Your task to perform on an android device: open chrome privacy settings Image 0: 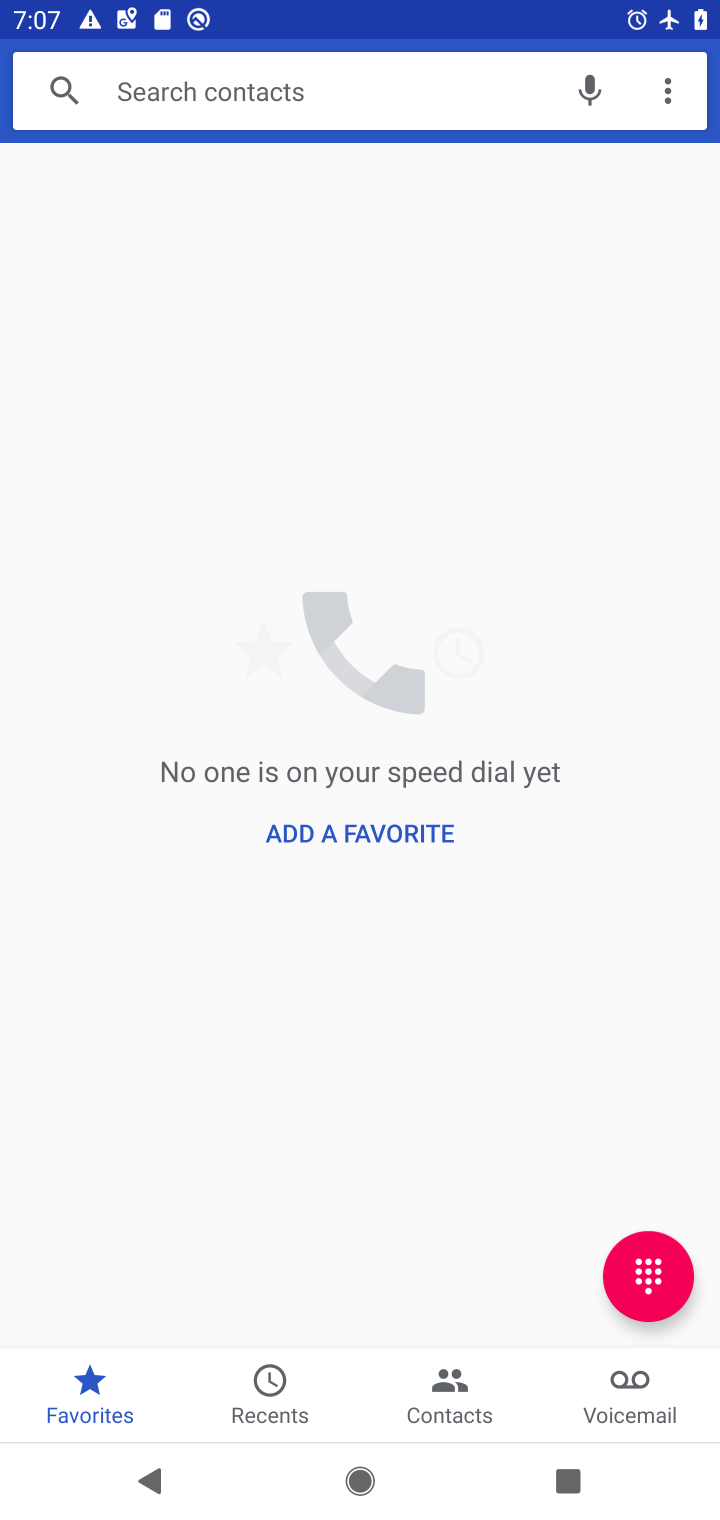
Step 0: press home button
Your task to perform on an android device: open chrome privacy settings Image 1: 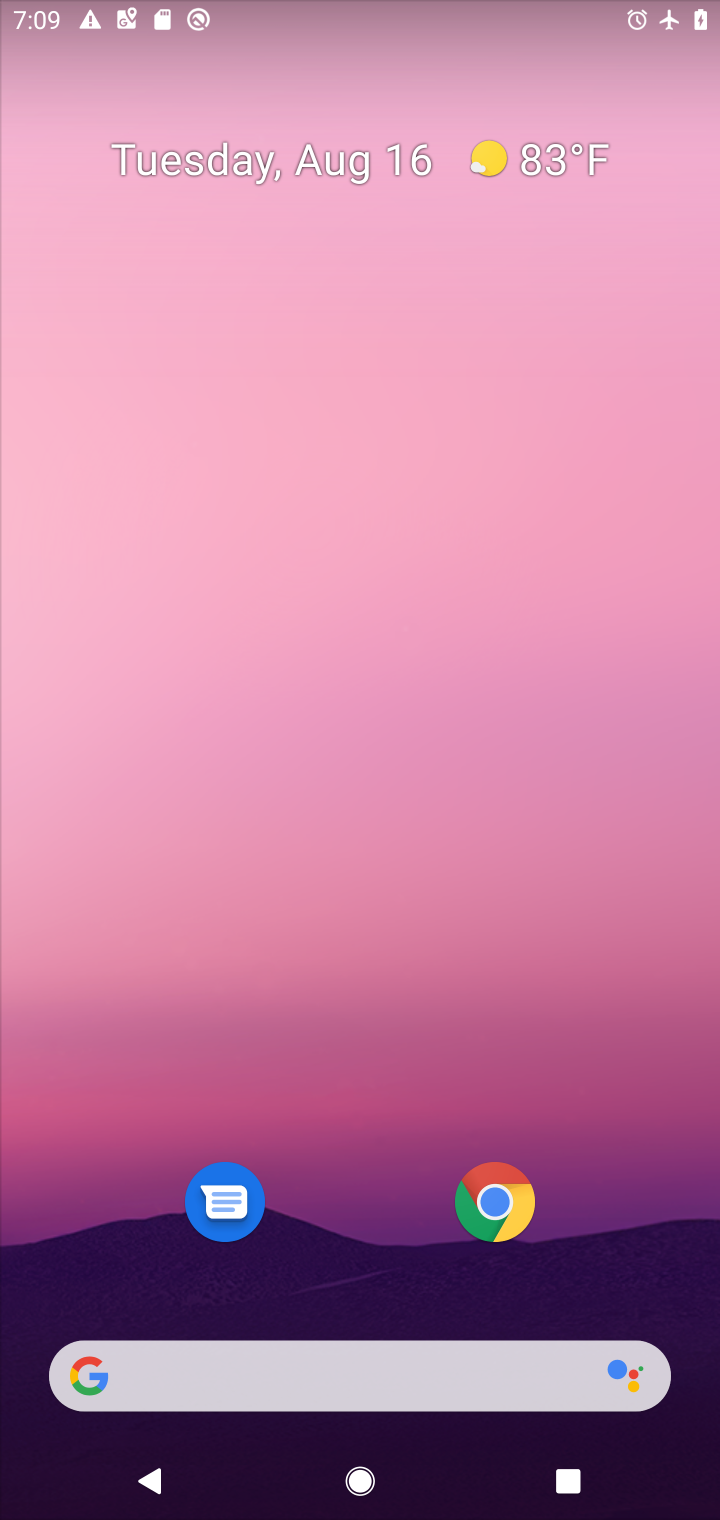
Step 1: drag from (625, 1294) to (355, 10)
Your task to perform on an android device: open chrome privacy settings Image 2: 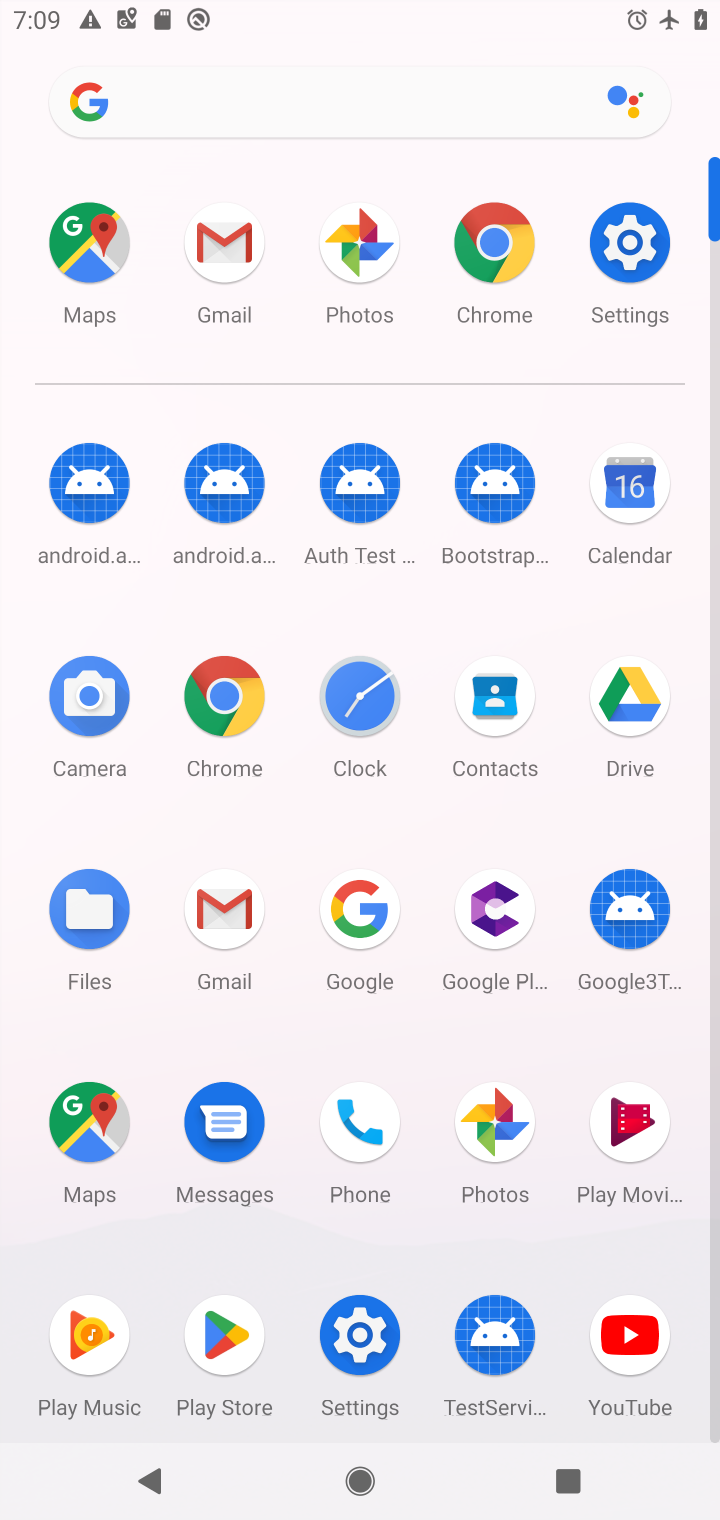
Step 2: click (502, 214)
Your task to perform on an android device: open chrome privacy settings Image 3: 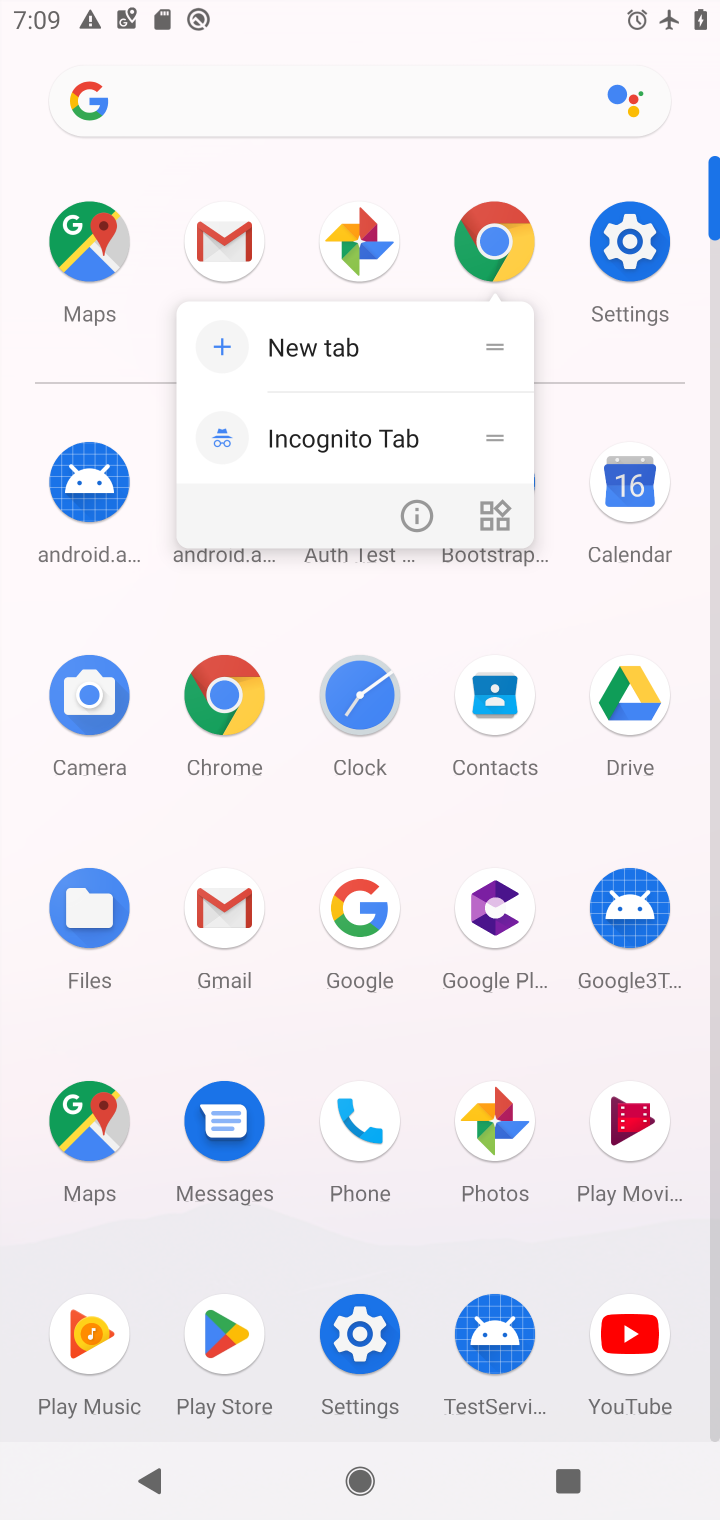
Step 3: click (502, 214)
Your task to perform on an android device: open chrome privacy settings Image 4: 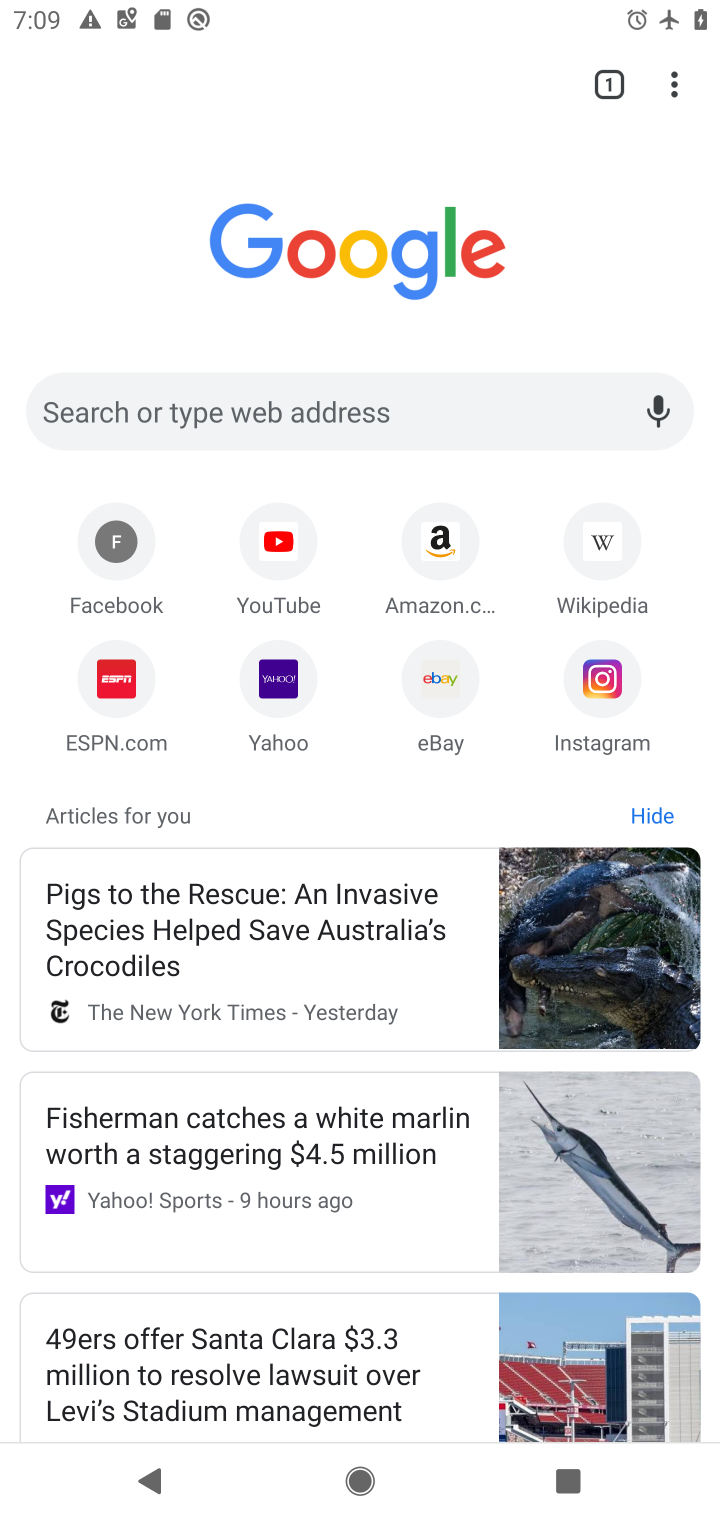
Step 4: click (681, 74)
Your task to perform on an android device: open chrome privacy settings Image 5: 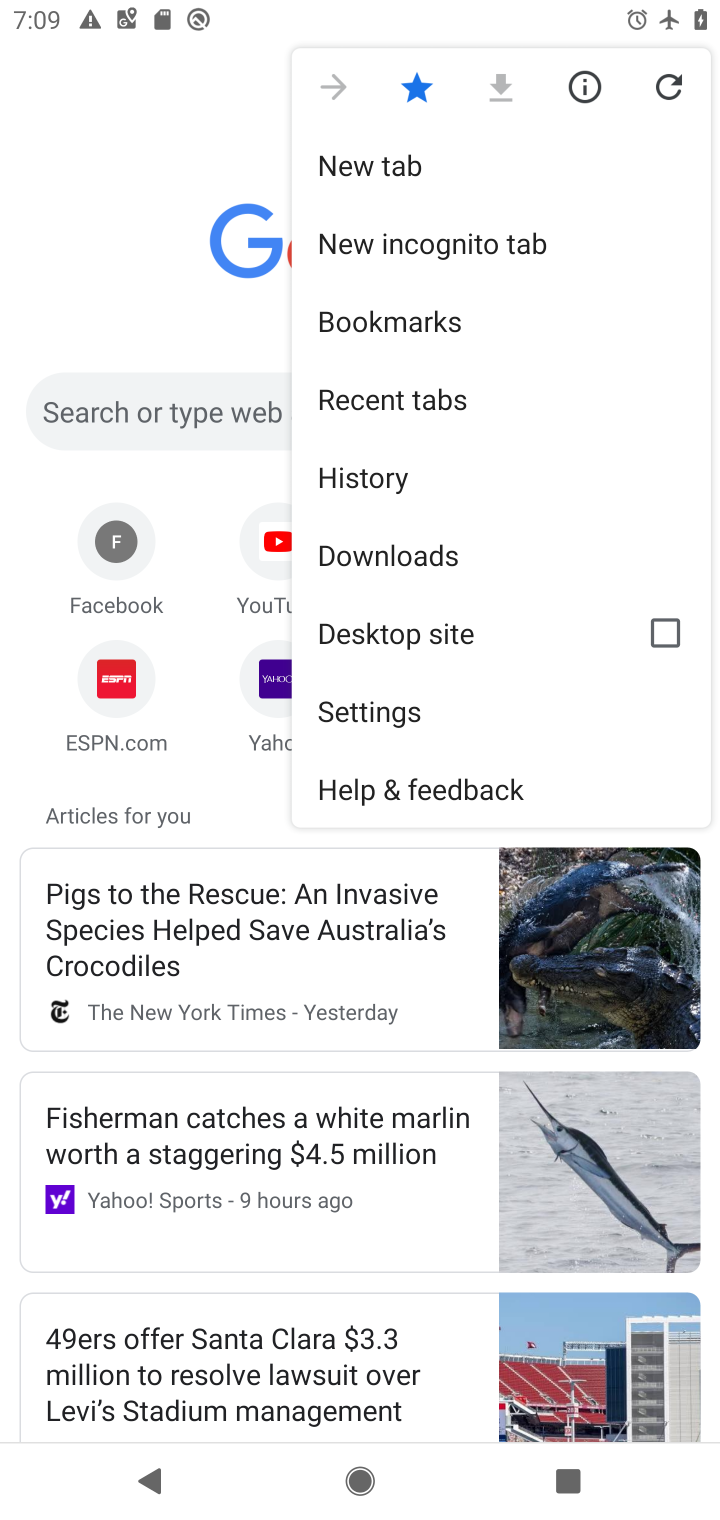
Step 5: click (392, 711)
Your task to perform on an android device: open chrome privacy settings Image 6: 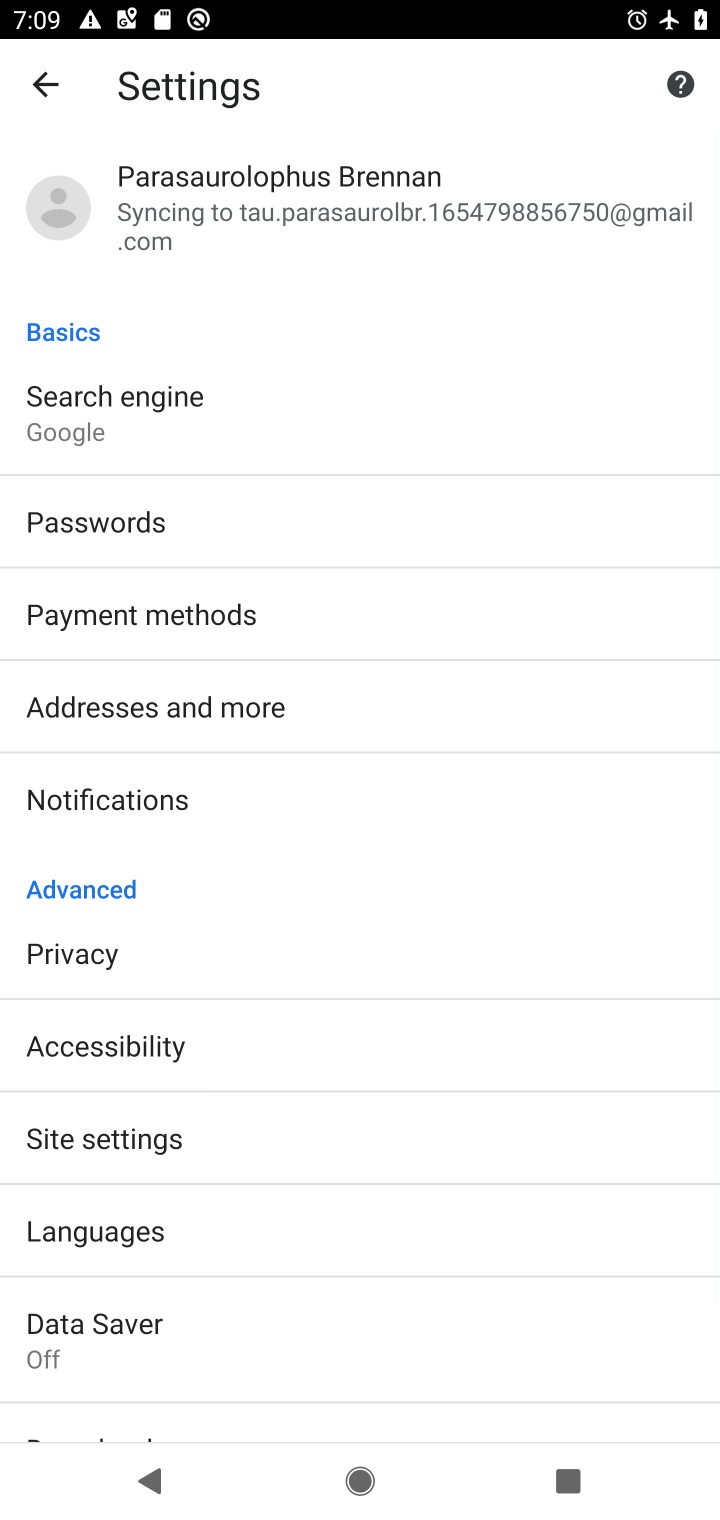
Step 6: click (92, 971)
Your task to perform on an android device: open chrome privacy settings Image 7: 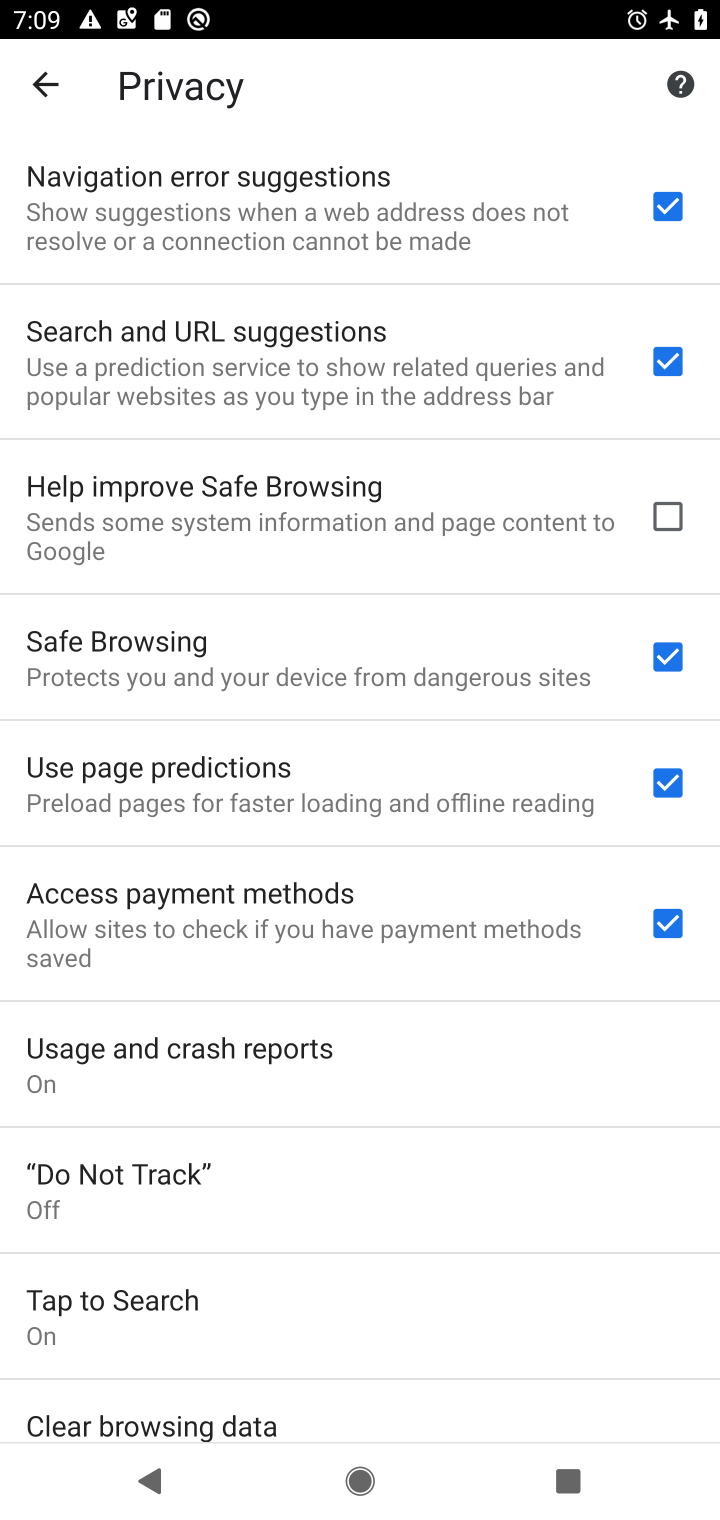
Step 7: task complete